Your task to perform on an android device: add a contact Image 0: 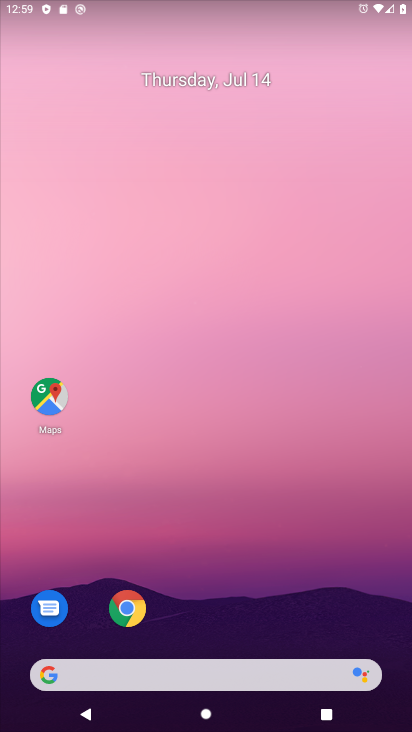
Step 0: drag from (336, 599) to (318, 118)
Your task to perform on an android device: add a contact Image 1: 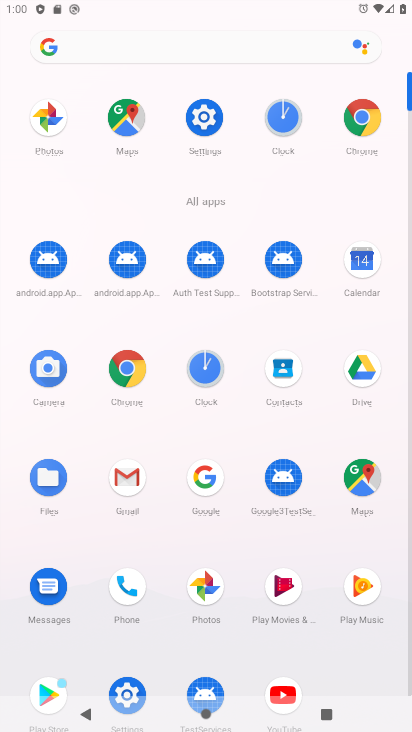
Step 1: drag from (181, 621) to (201, 223)
Your task to perform on an android device: add a contact Image 2: 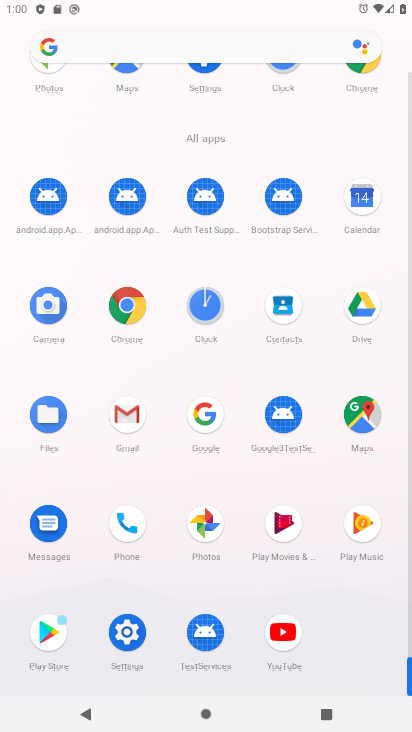
Step 2: click (279, 302)
Your task to perform on an android device: add a contact Image 3: 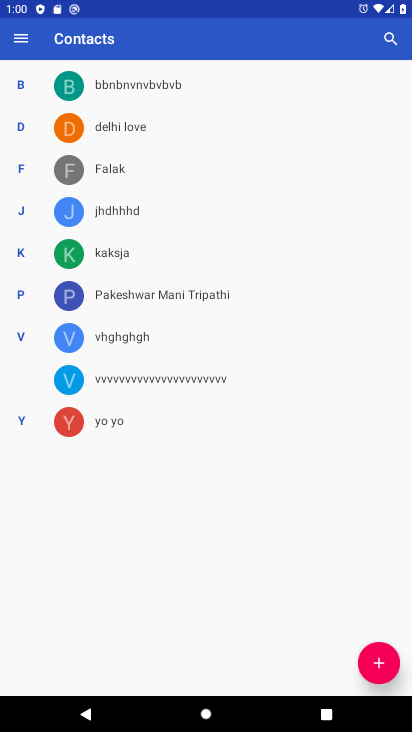
Step 3: click (370, 649)
Your task to perform on an android device: add a contact Image 4: 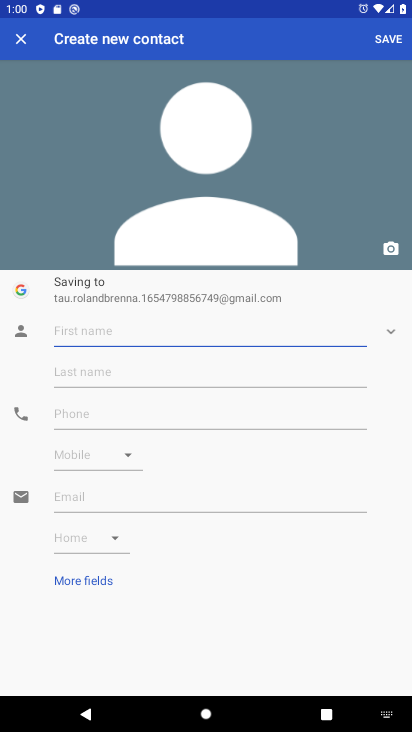
Step 4: type "hhgf"
Your task to perform on an android device: add a contact Image 5: 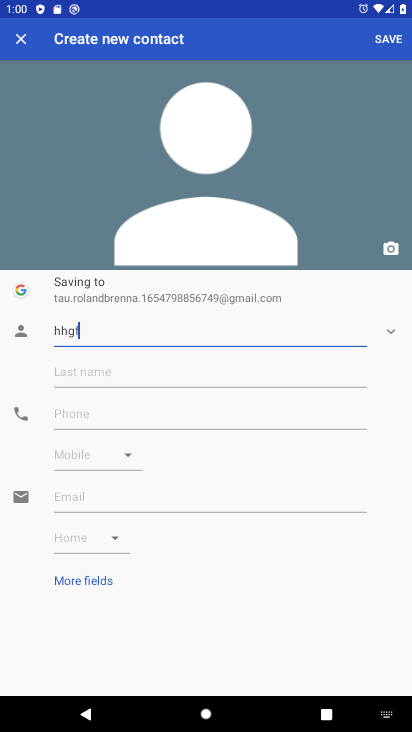
Step 5: click (116, 415)
Your task to perform on an android device: add a contact Image 6: 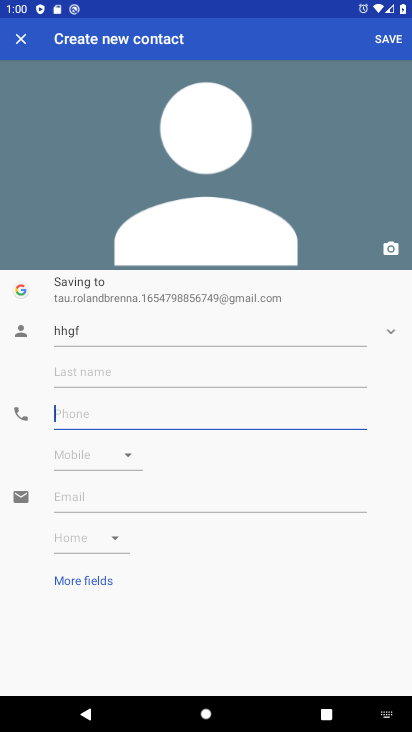
Step 6: type "0987"
Your task to perform on an android device: add a contact Image 7: 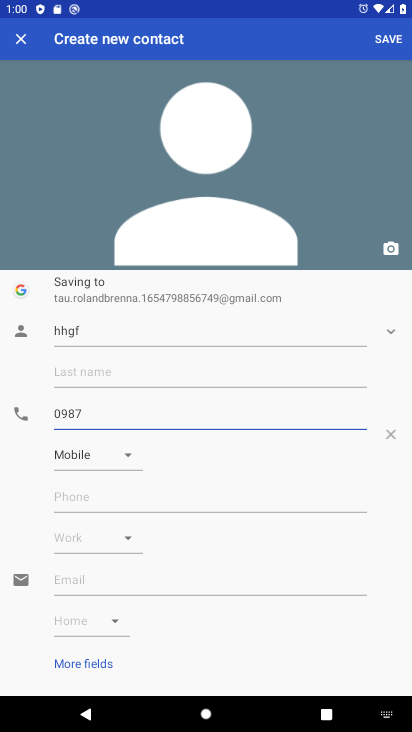
Step 7: click (388, 38)
Your task to perform on an android device: add a contact Image 8: 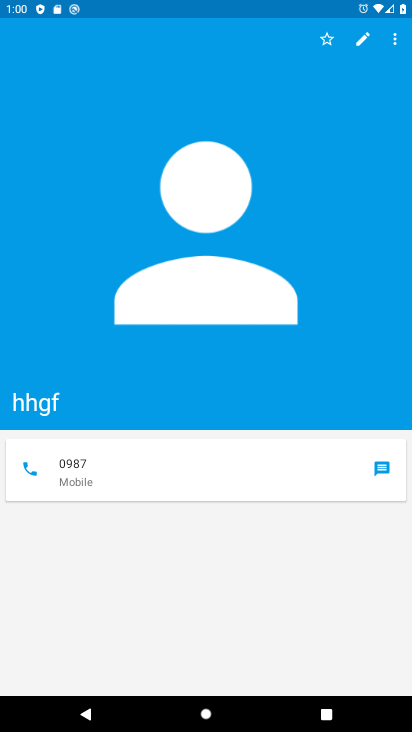
Step 8: task complete